Your task to perform on an android device: Open the Play Movies app and select the watchlist tab. Image 0: 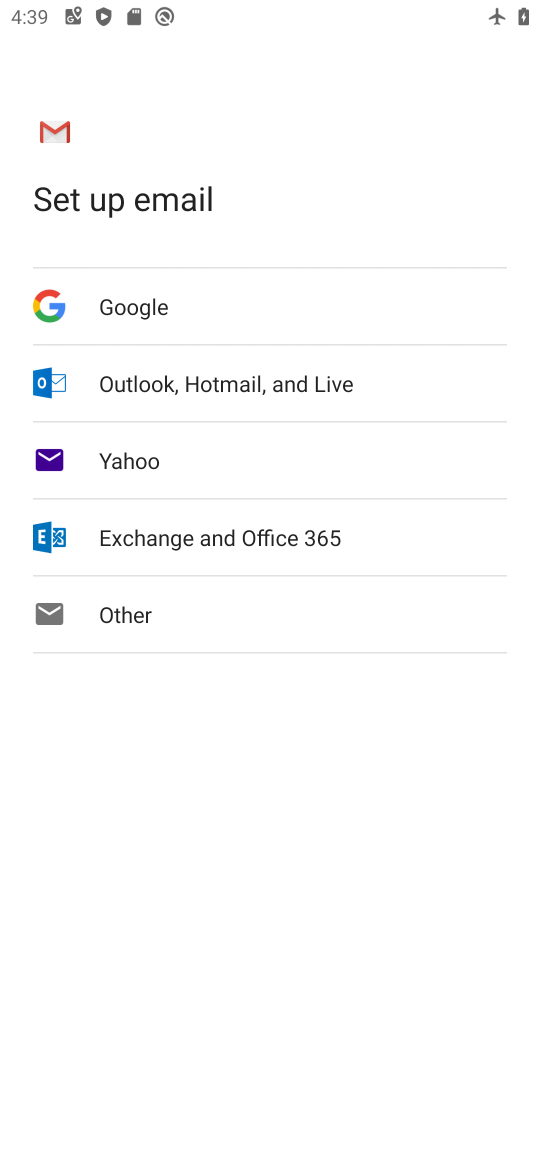
Step 0: press home button
Your task to perform on an android device: Open the Play Movies app and select the watchlist tab. Image 1: 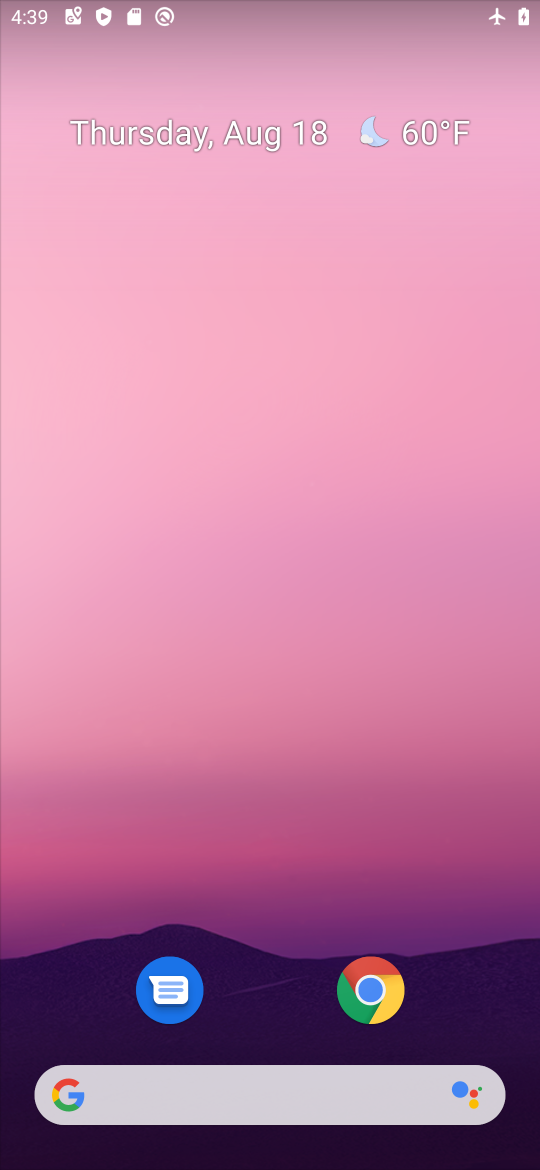
Step 1: drag from (269, 951) to (353, 180)
Your task to perform on an android device: Open the Play Movies app and select the watchlist tab. Image 2: 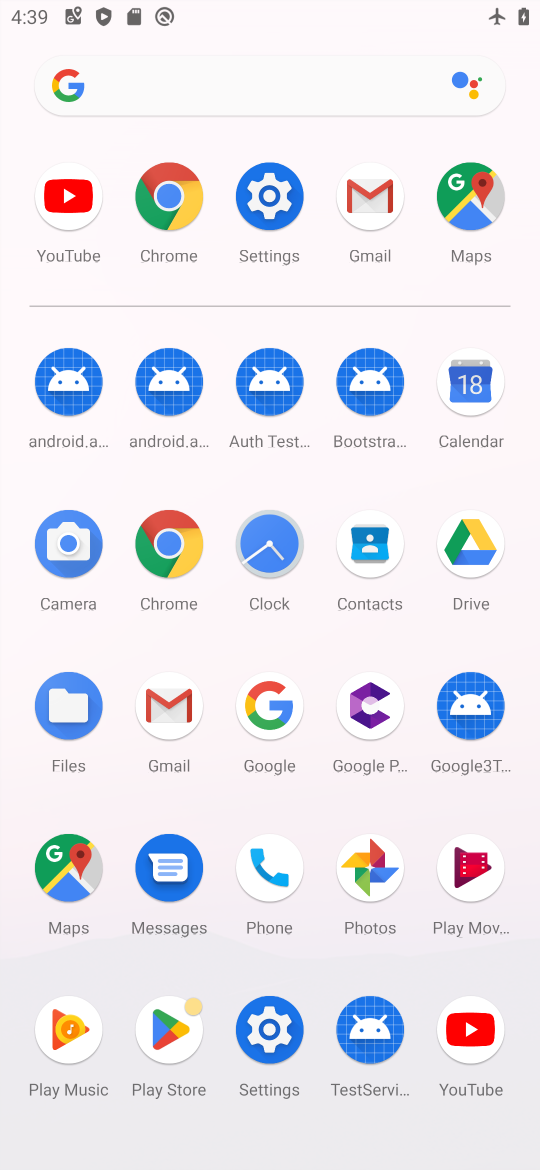
Step 2: click (491, 865)
Your task to perform on an android device: Open the Play Movies app and select the watchlist tab. Image 3: 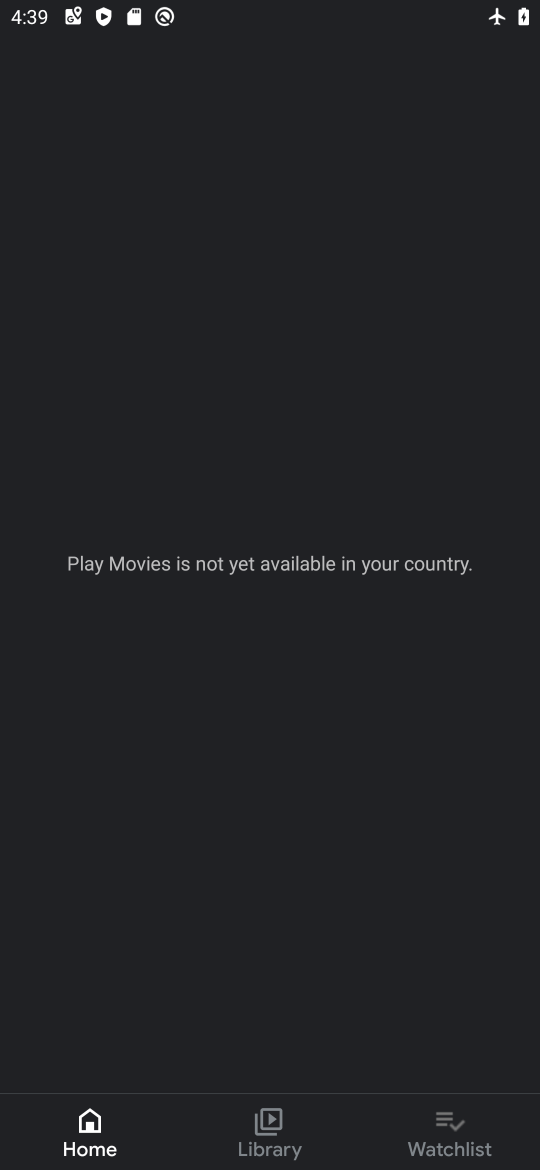
Step 3: click (418, 1142)
Your task to perform on an android device: Open the Play Movies app and select the watchlist tab. Image 4: 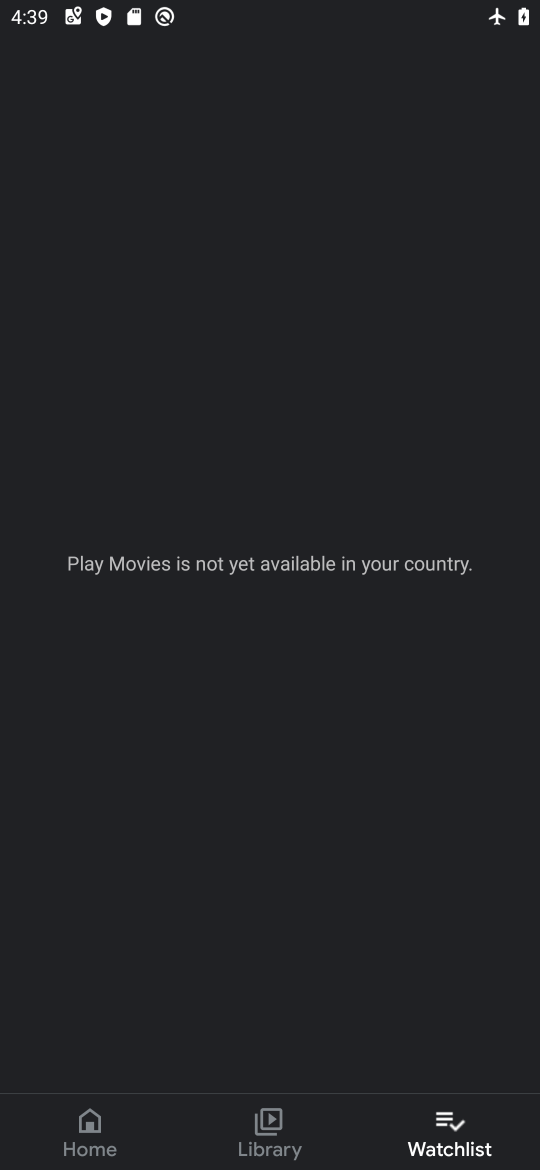
Step 4: task complete